Your task to perform on an android device: turn off data saver in the chrome app Image 0: 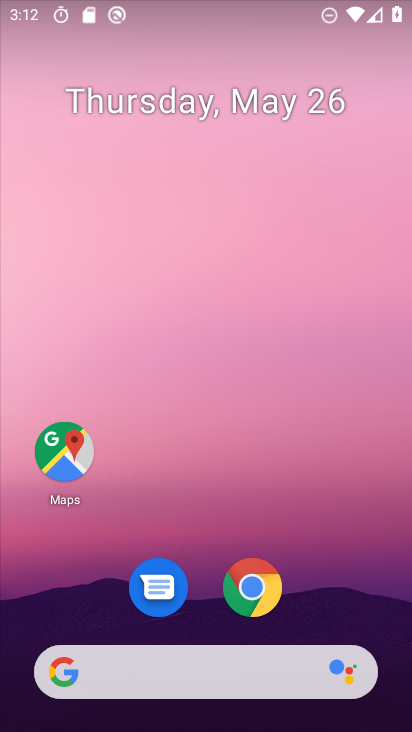
Step 0: drag from (319, 570) to (295, 150)
Your task to perform on an android device: turn off data saver in the chrome app Image 1: 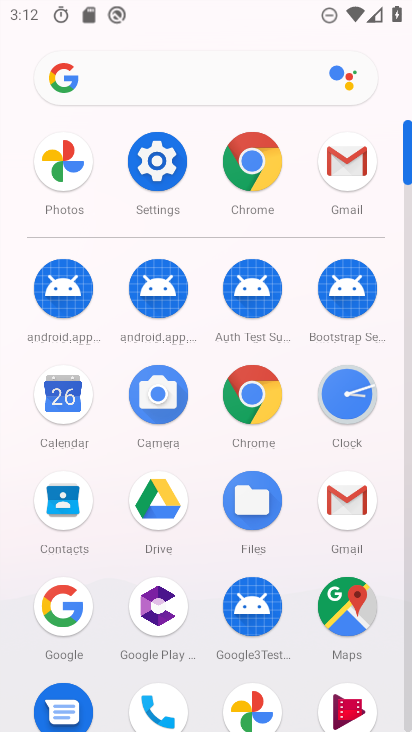
Step 1: click (260, 397)
Your task to perform on an android device: turn off data saver in the chrome app Image 2: 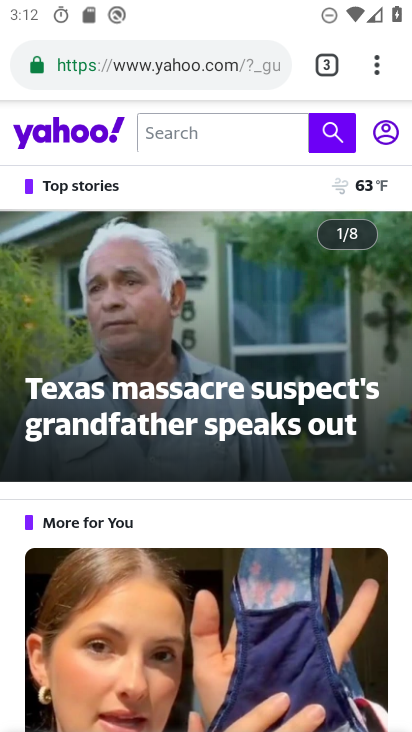
Step 2: drag from (382, 68) to (239, 632)
Your task to perform on an android device: turn off data saver in the chrome app Image 3: 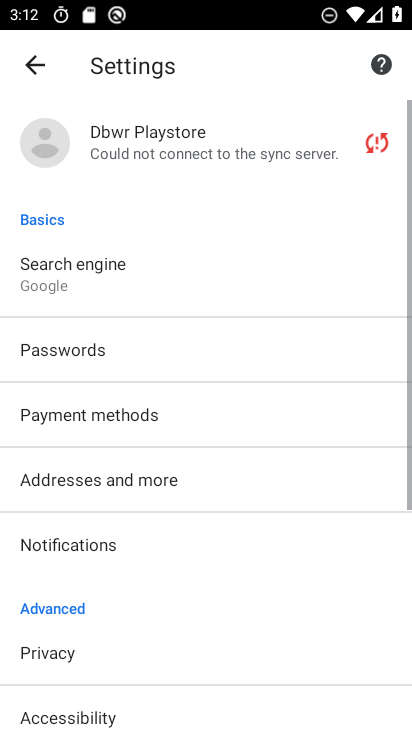
Step 3: drag from (239, 632) to (302, 123)
Your task to perform on an android device: turn off data saver in the chrome app Image 4: 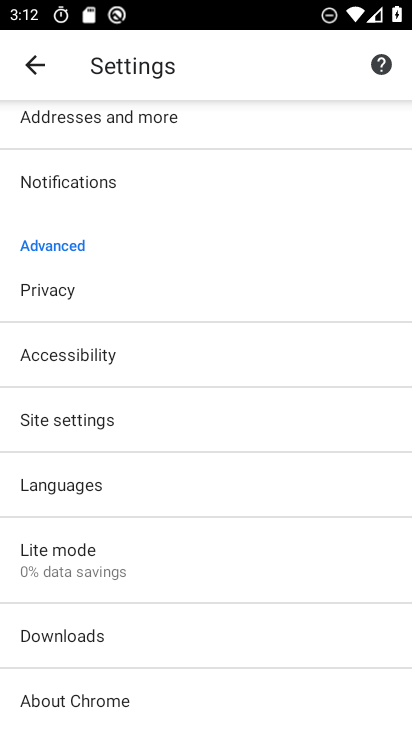
Step 4: click (162, 576)
Your task to perform on an android device: turn off data saver in the chrome app Image 5: 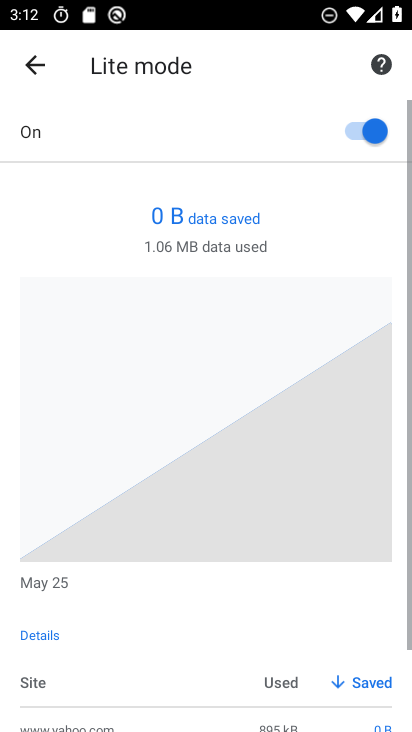
Step 5: click (370, 111)
Your task to perform on an android device: turn off data saver in the chrome app Image 6: 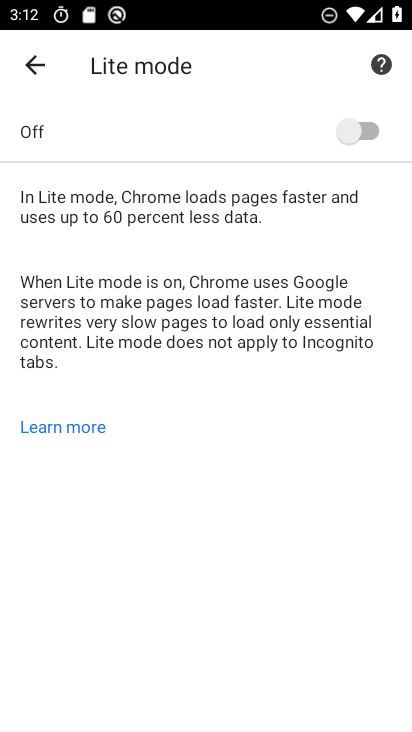
Step 6: task complete